Your task to perform on an android device: turn off notifications in google photos Image 0: 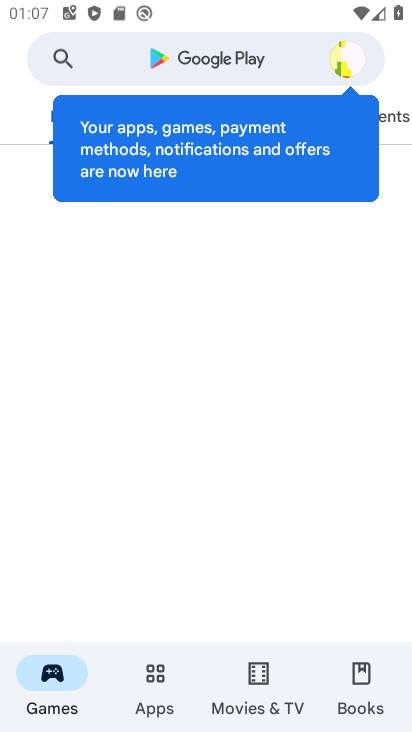
Step 0: press back button
Your task to perform on an android device: turn off notifications in google photos Image 1: 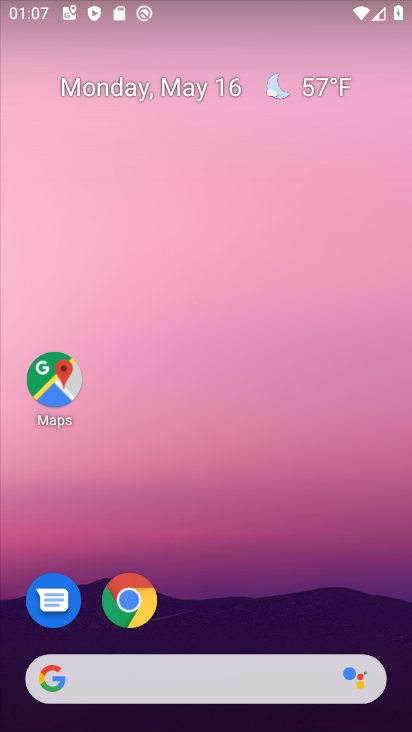
Step 1: drag from (197, 603) to (241, 199)
Your task to perform on an android device: turn off notifications in google photos Image 2: 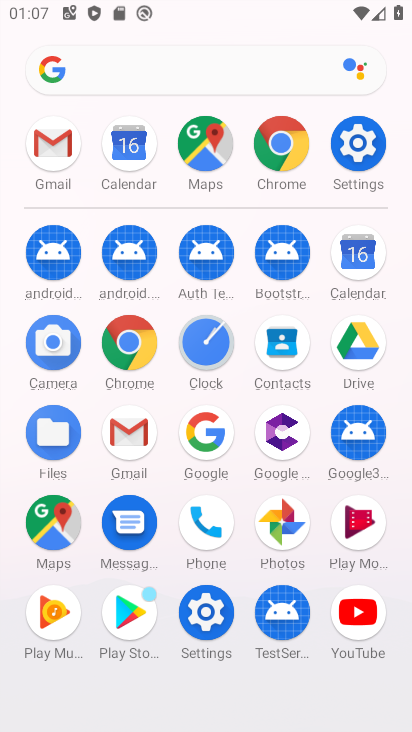
Step 2: click (276, 521)
Your task to perform on an android device: turn off notifications in google photos Image 3: 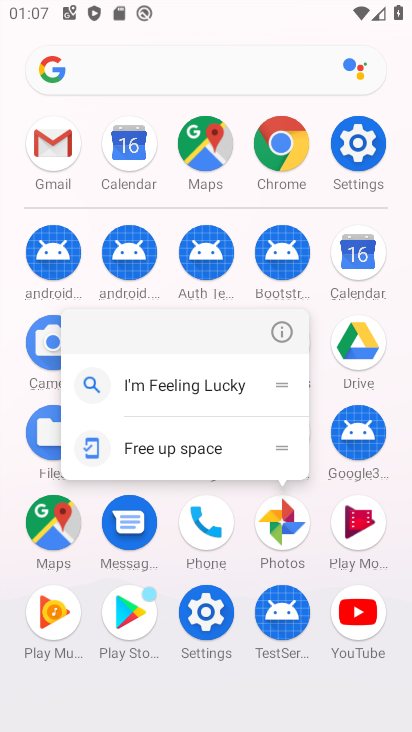
Step 3: click (280, 337)
Your task to perform on an android device: turn off notifications in google photos Image 4: 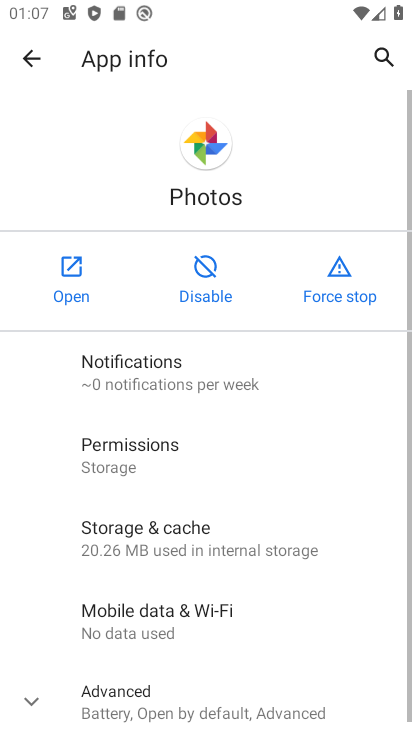
Step 4: click (153, 380)
Your task to perform on an android device: turn off notifications in google photos Image 5: 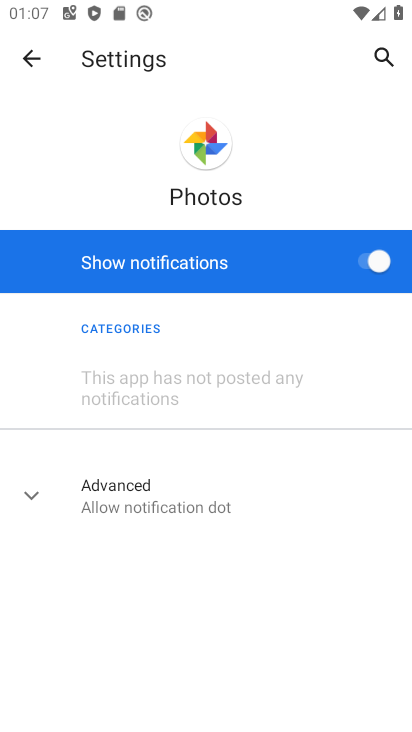
Step 5: click (371, 266)
Your task to perform on an android device: turn off notifications in google photos Image 6: 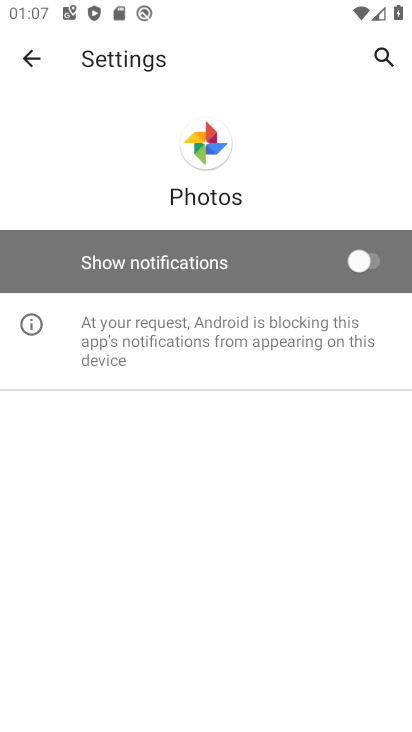
Step 6: task complete